Your task to perform on an android device: clear history in the chrome app Image 0: 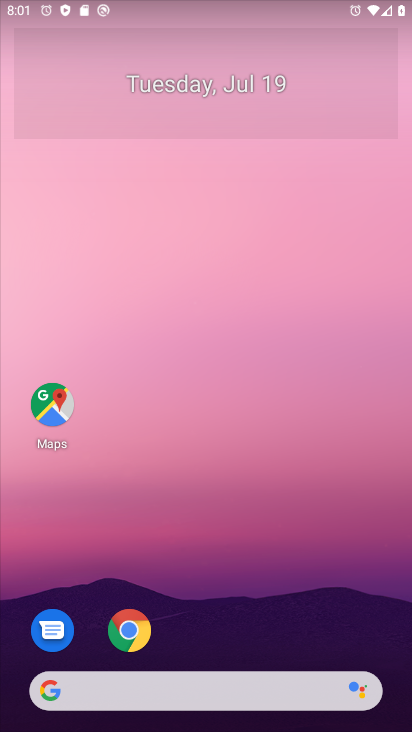
Step 0: click (130, 640)
Your task to perform on an android device: clear history in the chrome app Image 1: 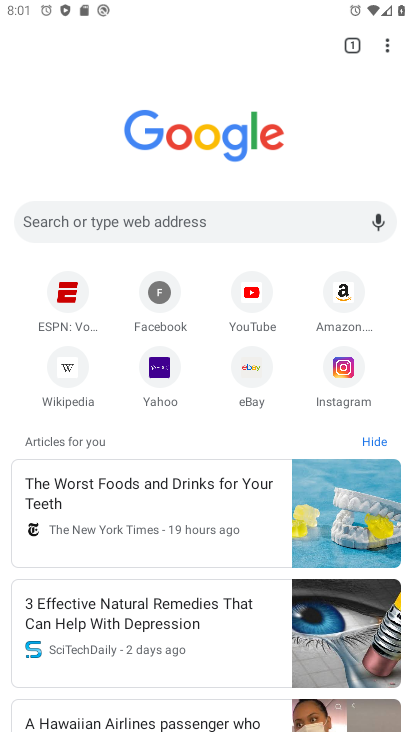
Step 1: click (382, 48)
Your task to perform on an android device: clear history in the chrome app Image 2: 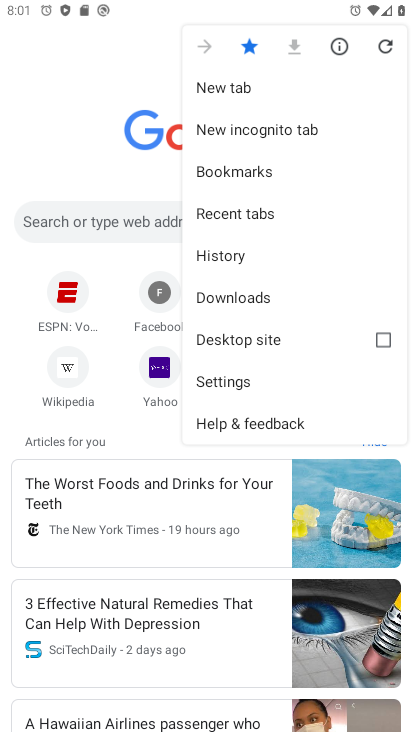
Step 2: click (232, 255)
Your task to perform on an android device: clear history in the chrome app Image 3: 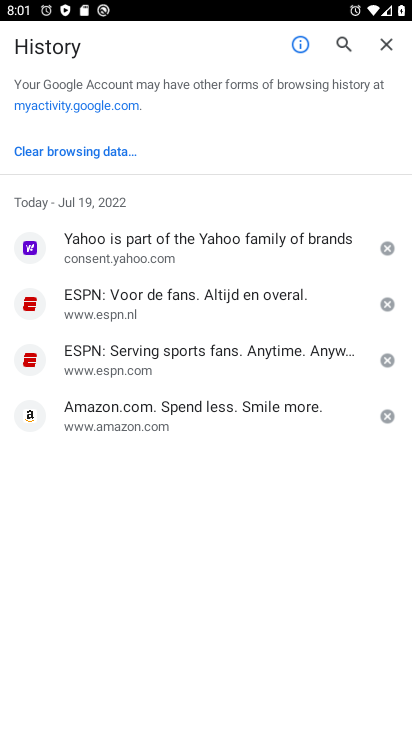
Step 3: click (100, 153)
Your task to perform on an android device: clear history in the chrome app Image 4: 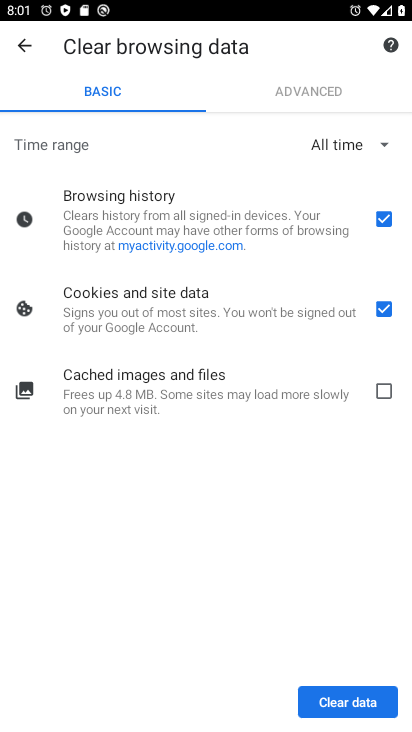
Step 4: click (354, 698)
Your task to perform on an android device: clear history in the chrome app Image 5: 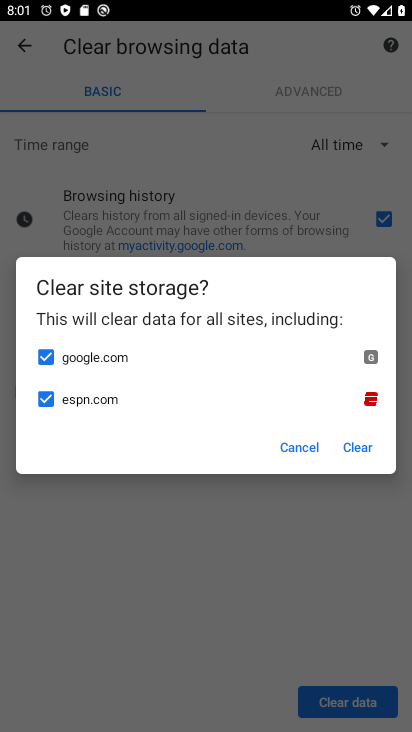
Step 5: click (360, 446)
Your task to perform on an android device: clear history in the chrome app Image 6: 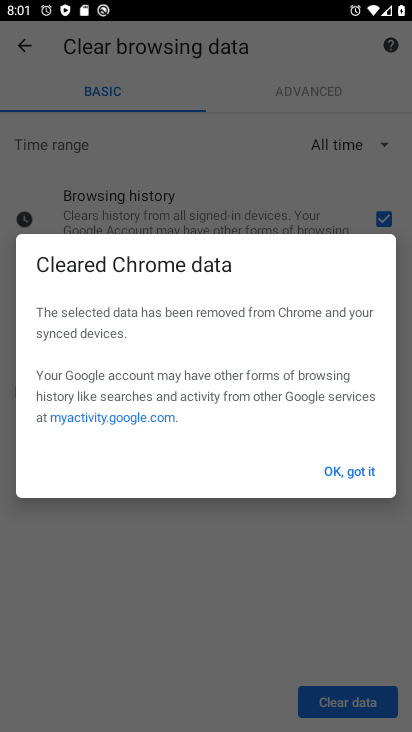
Step 6: click (341, 473)
Your task to perform on an android device: clear history in the chrome app Image 7: 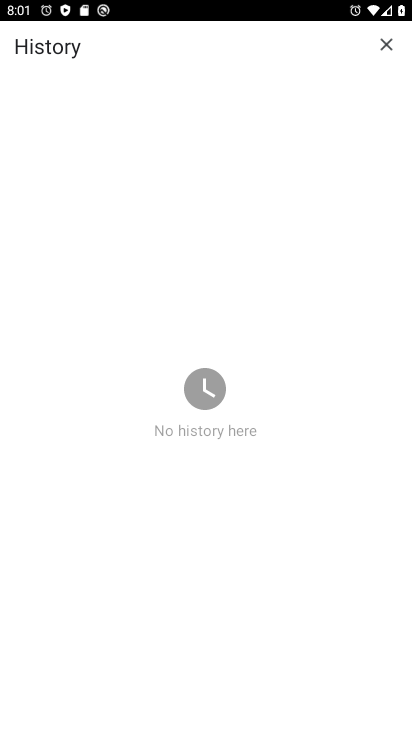
Step 7: task complete